Your task to perform on an android device: Add bose soundlink to the cart on walmart Image 0: 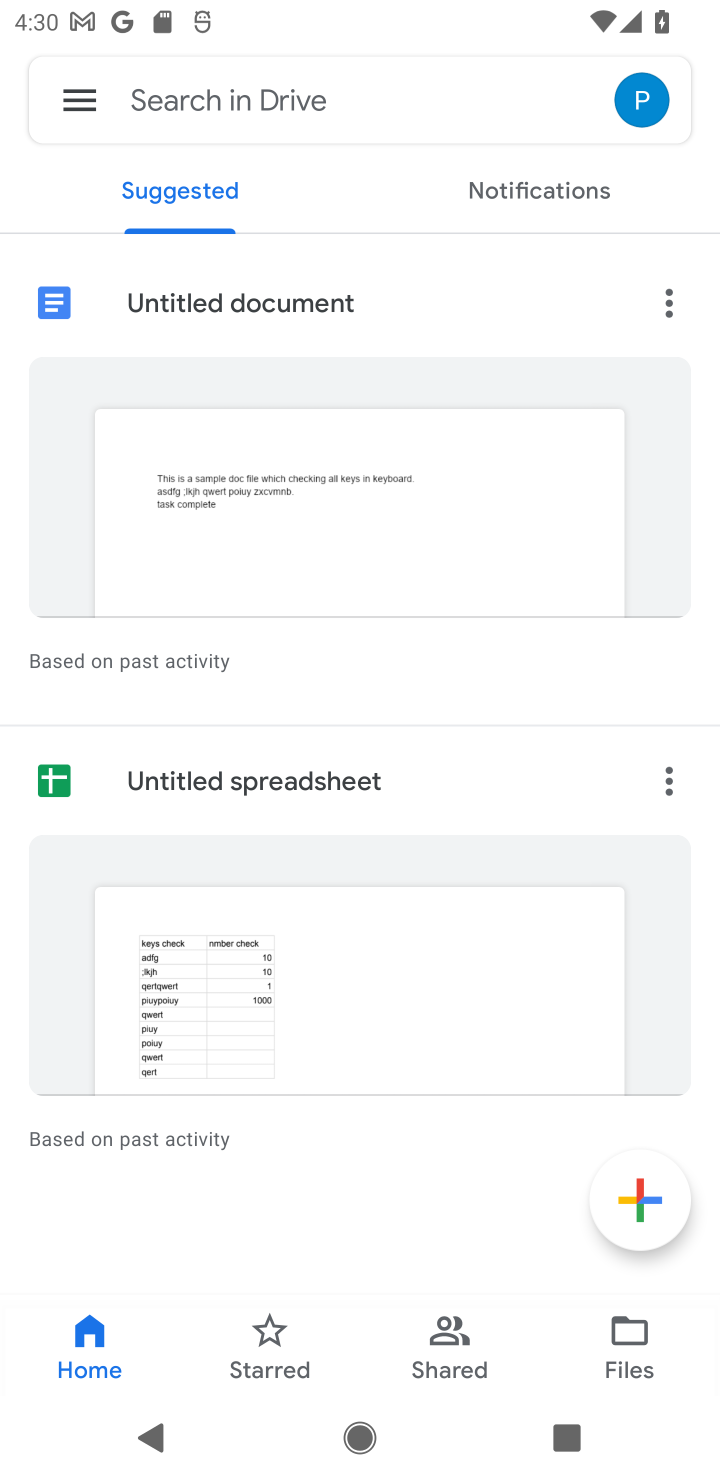
Step 0: press home button
Your task to perform on an android device: Add bose soundlink to the cart on walmart Image 1: 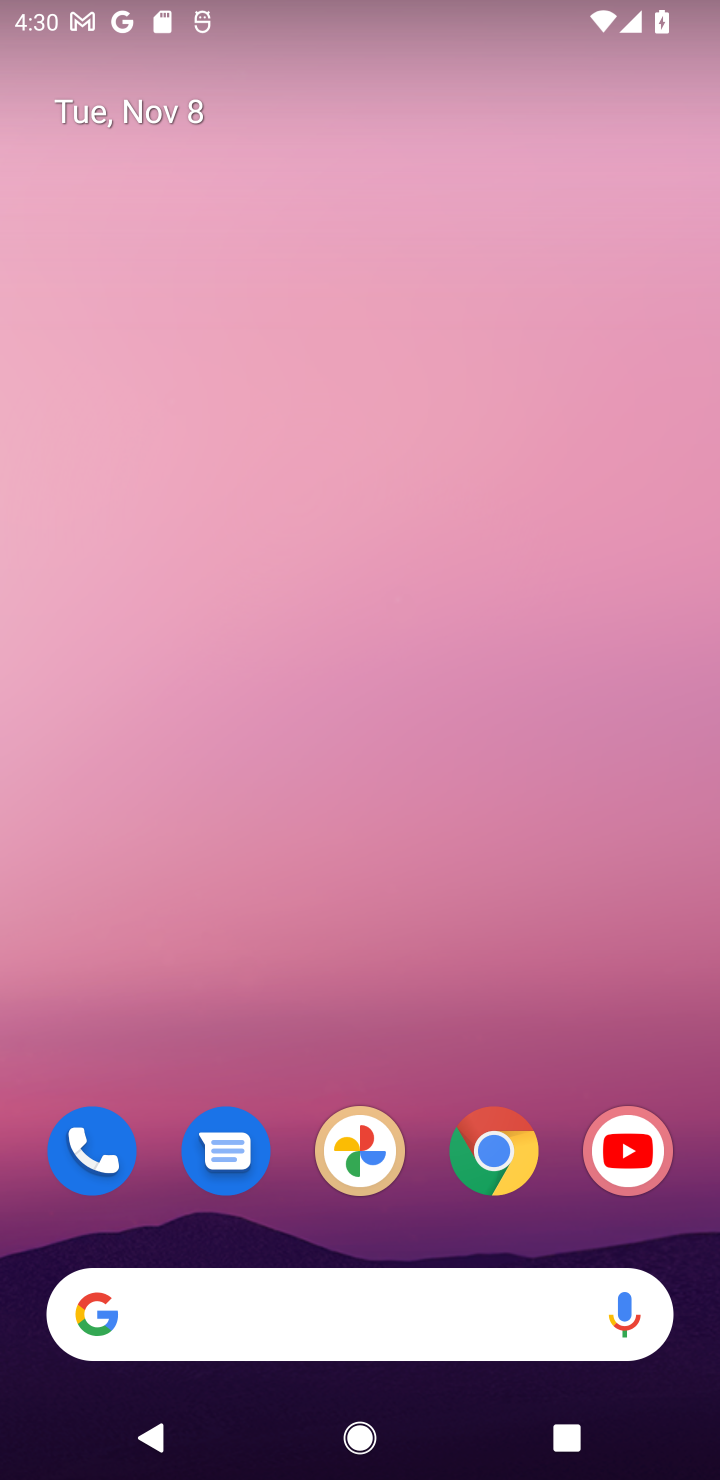
Step 1: drag from (431, 1249) to (541, 314)
Your task to perform on an android device: Add bose soundlink to the cart on walmart Image 2: 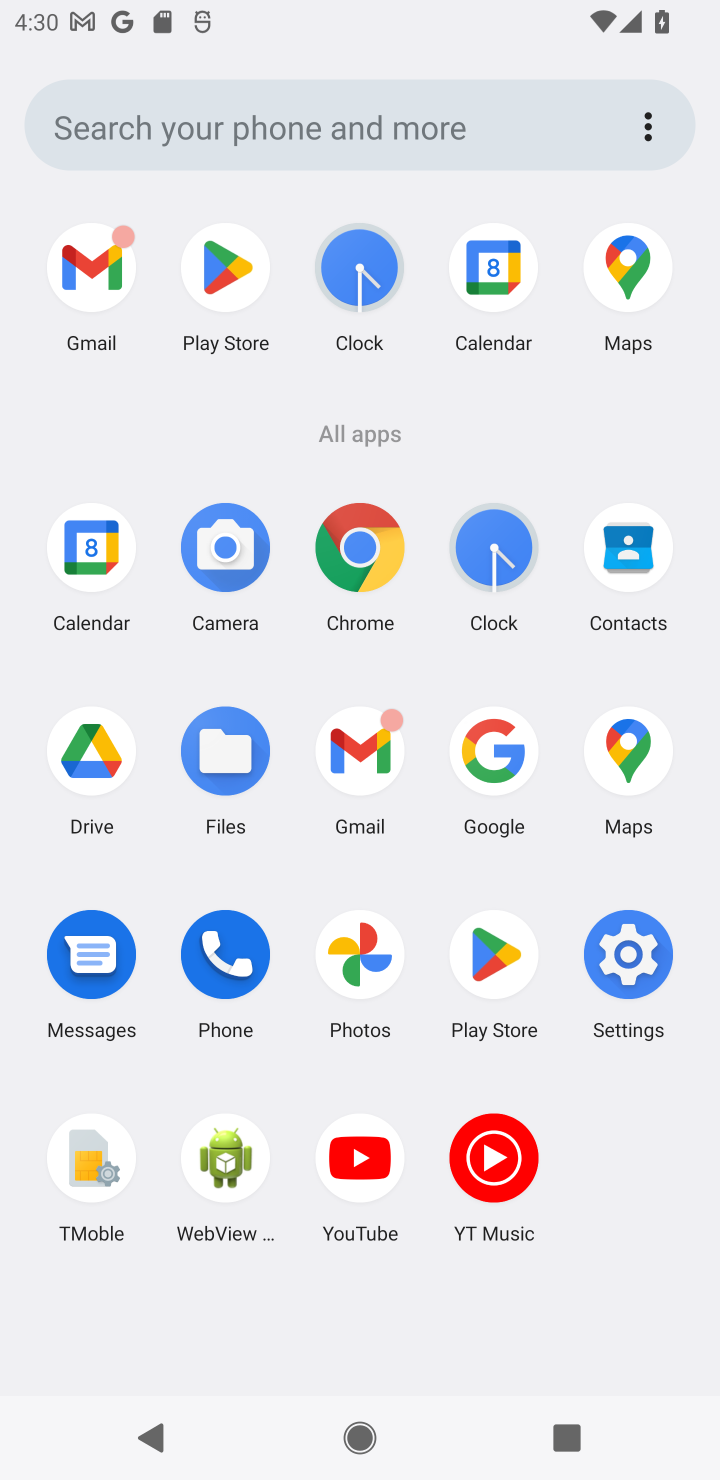
Step 2: click (356, 548)
Your task to perform on an android device: Add bose soundlink to the cart on walmart Image 3: 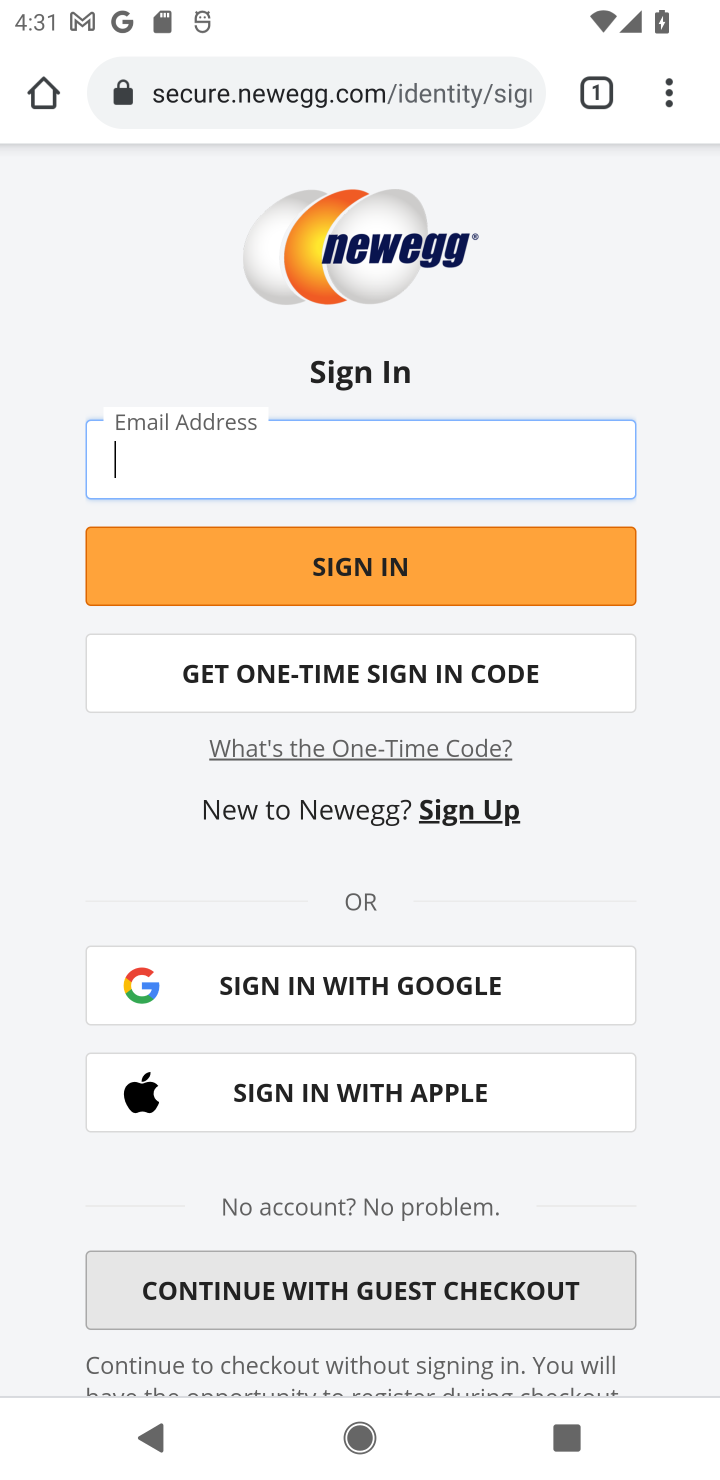
Step 3: click (281, 71)
Your task to perform on an android device: Add bose soundlink to the cart on walmart Image 4: 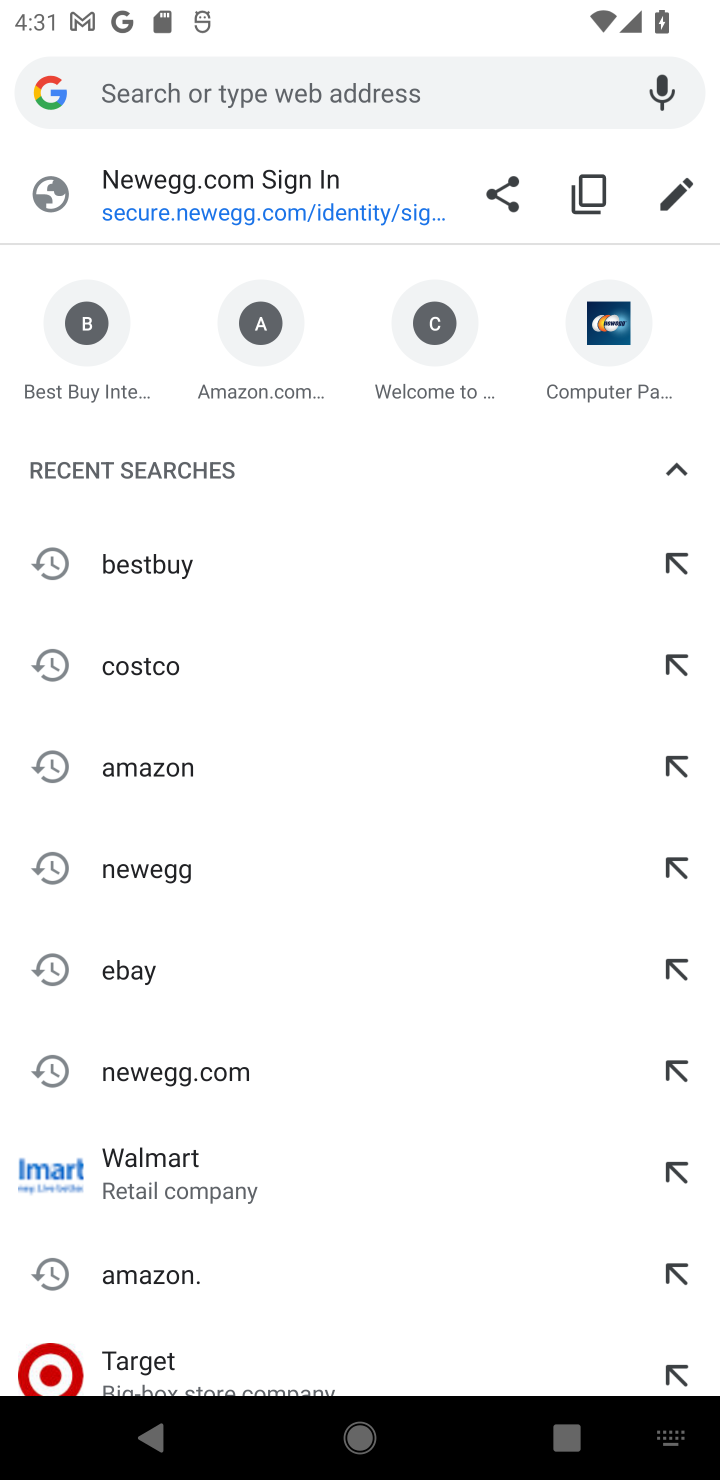
Step 4: type "walmart.com"
Your task to perform on an android device: Add bose soundlink to the cart on walmart Image 5: 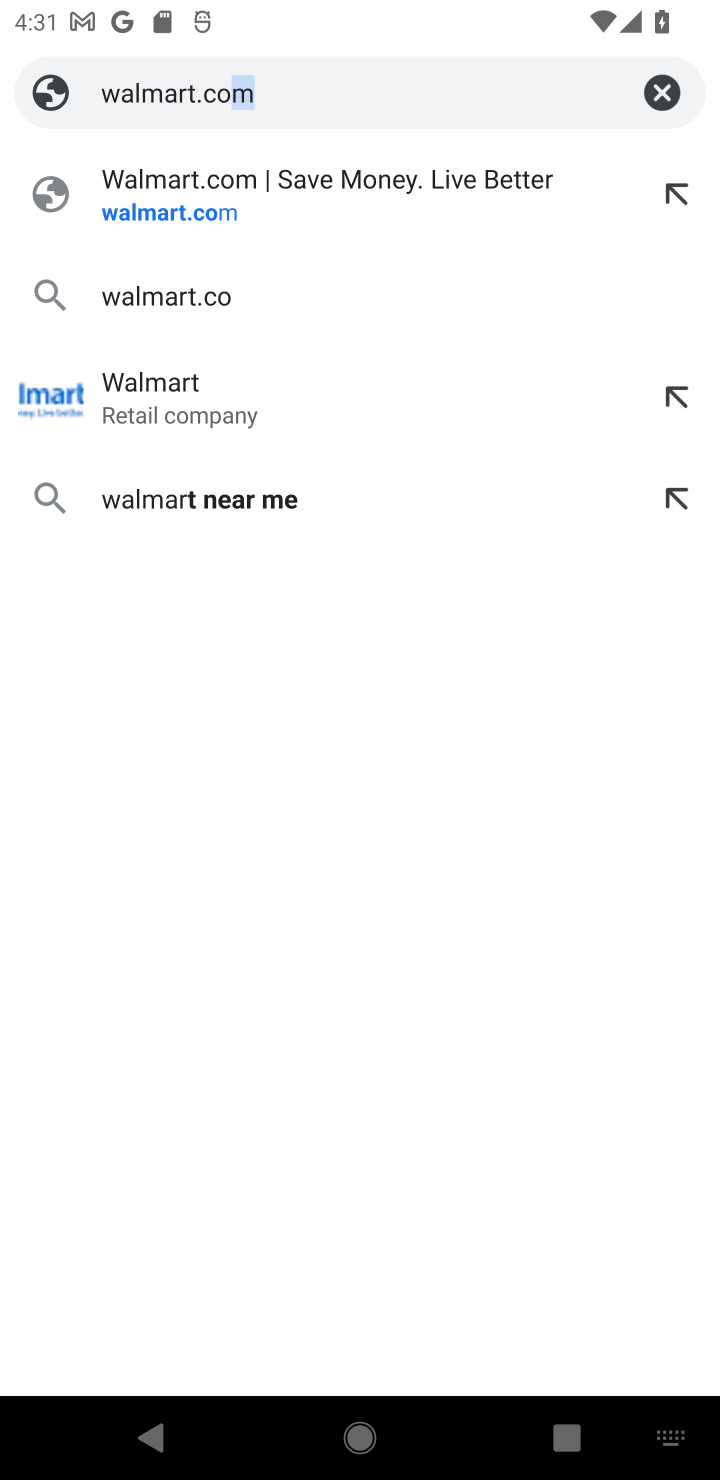
Step 5: press enter
Your task to perform on an android device: Add bose soundlink to the cart on walmart Image 6: 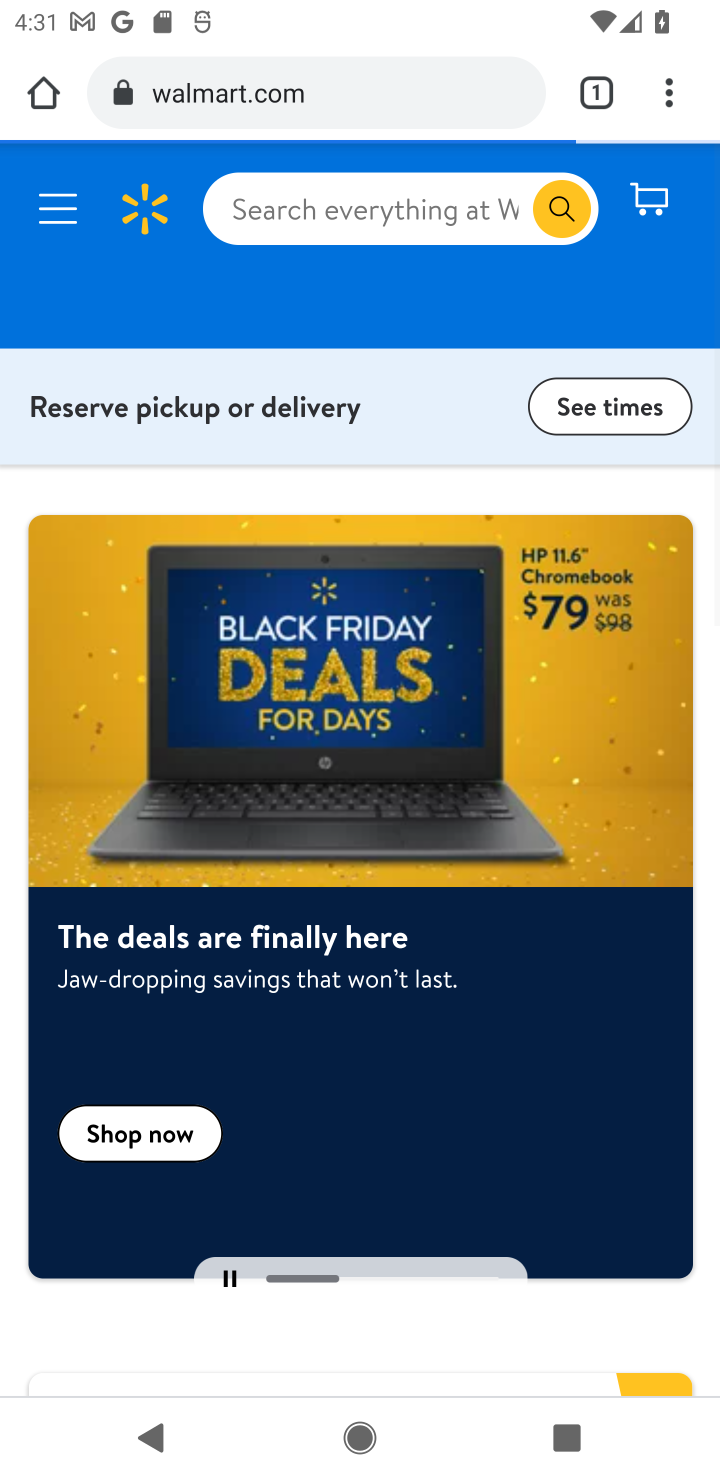
Step 6: click (397, 221)
Your task to perform on an android device: Add bose soundlink to the cart on walmart Image 7: 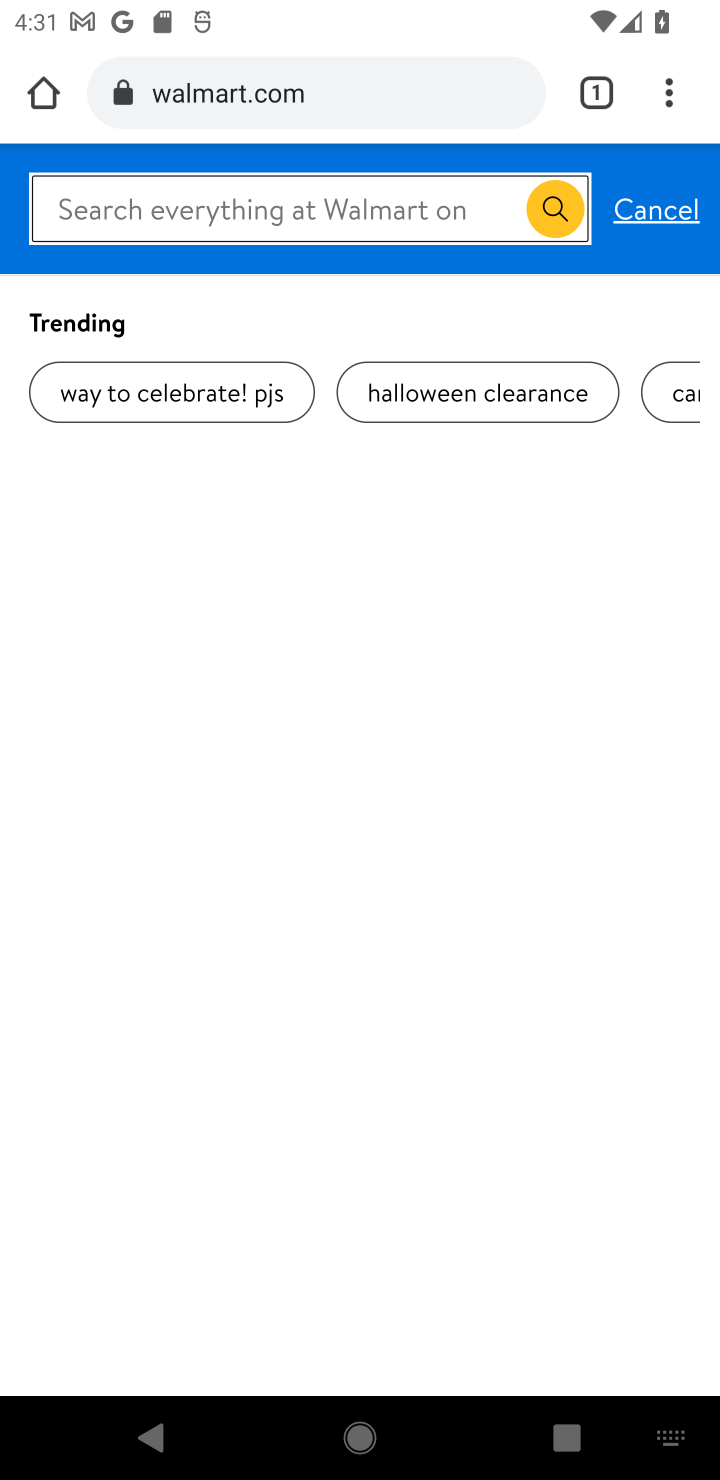
Step 7: type "bose soundlink"
Your task to perform on an android device: Add bose soundlink to the cart on walmart Image 8: 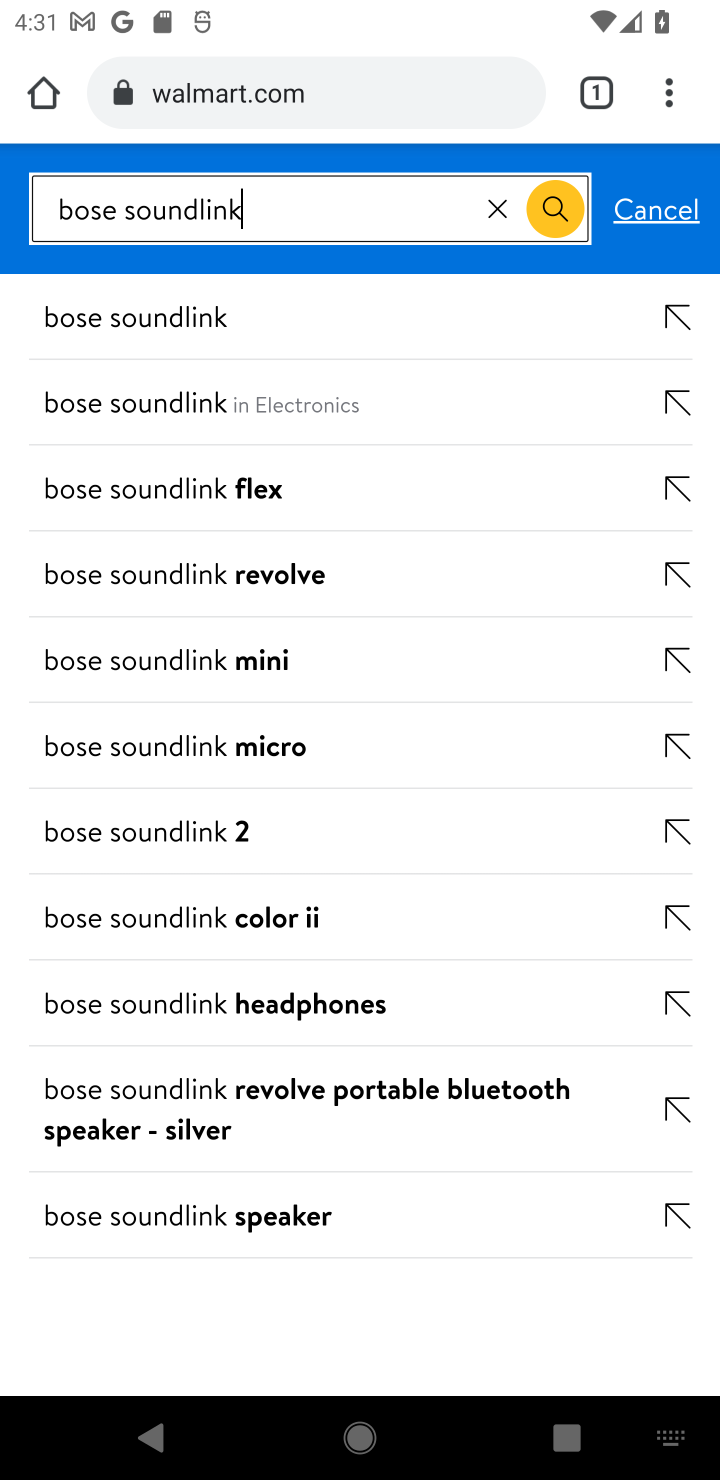
Step 8: press enter
Your task to perform on an android device: Add bose soundlink to the cart on walmart Image 9: 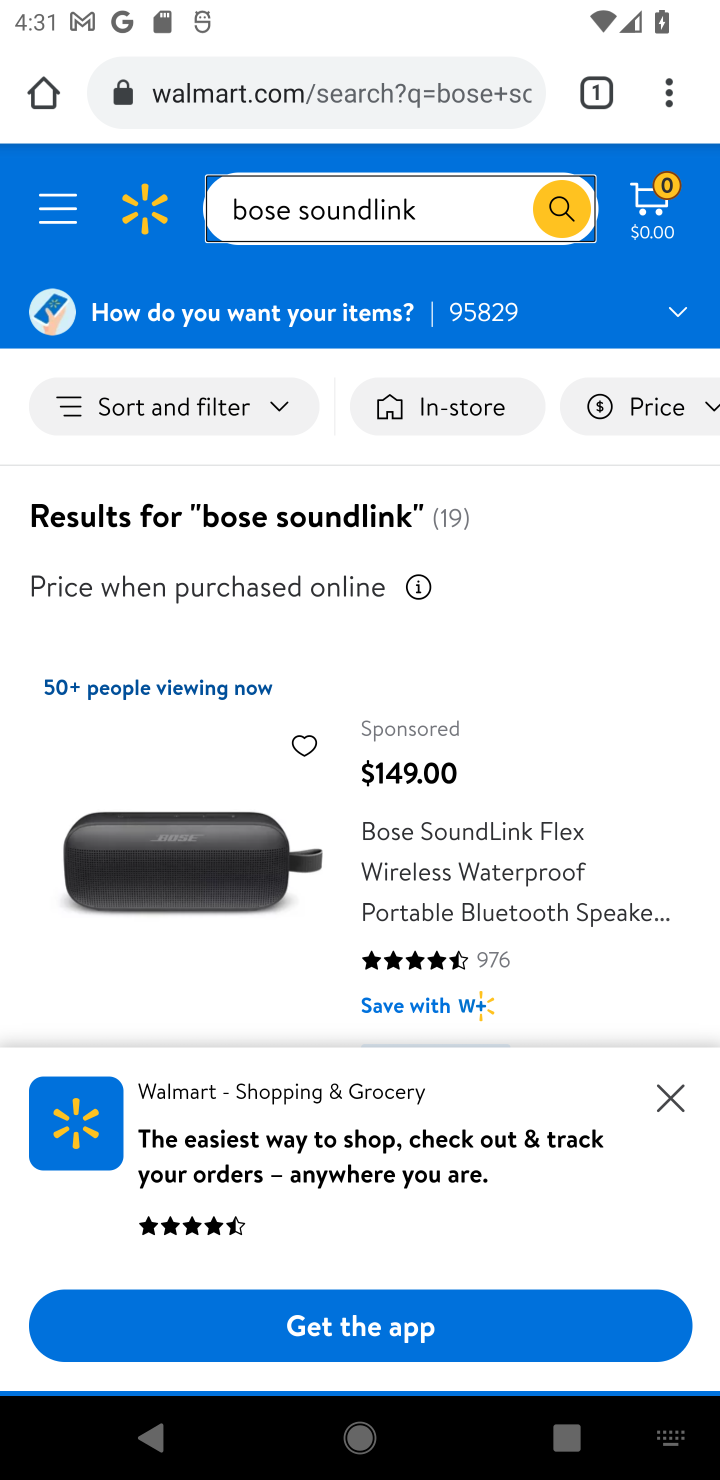
Step 9: drag from (367, 547) to (411, 306)
Your task to perform on an android device: Add bose soundlink to the cart on walmart Image 10: 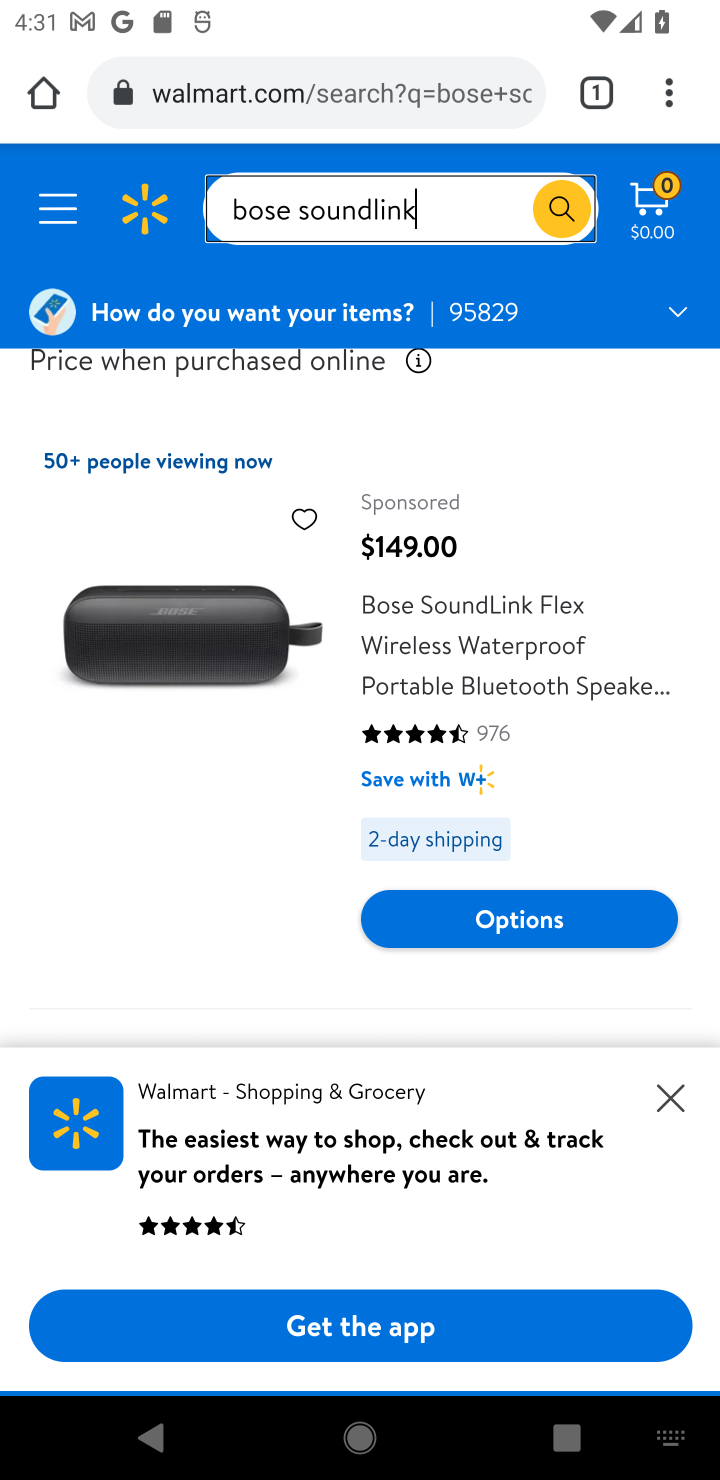
Step 10: drag from (308, 969) to (317, 188)
Your task to perform on an android device: Add bose soundlink to the cart on walmart Image 11: 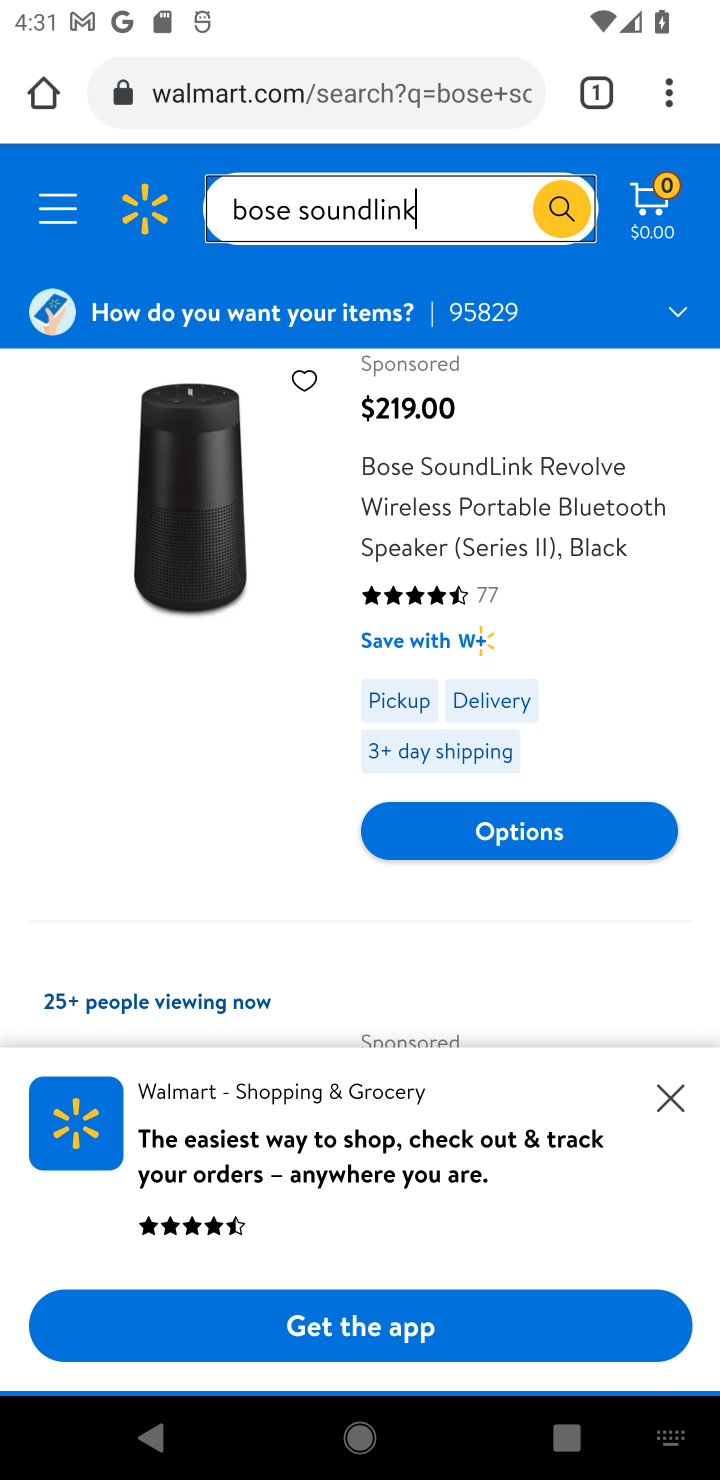
Step 11: drag from (256, 815) to (297, 239)
Your task to perform on an android device: Add bose soundlink to the cart on walmart Image 12: 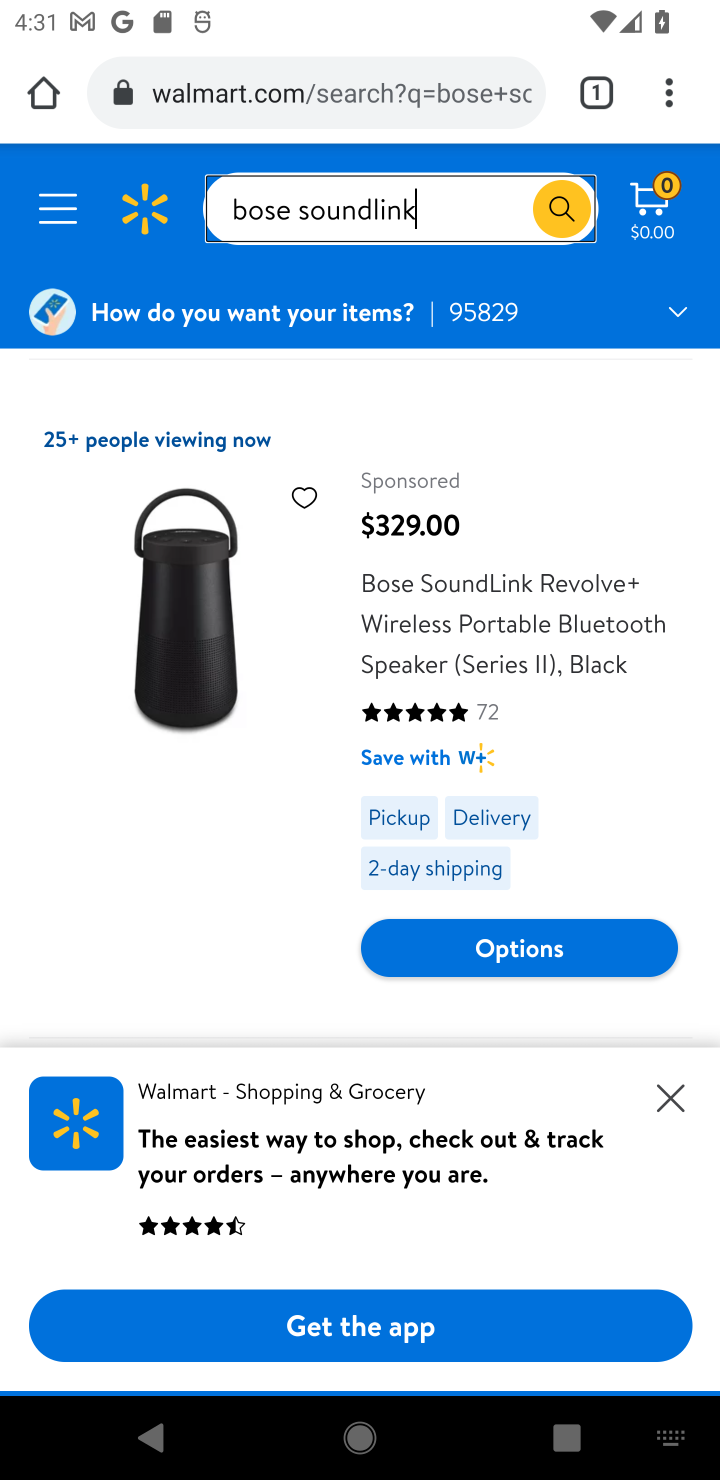
Step 12: drag from (204, 952) to (226, 361)
Your task to perform on an android device: Add bose soundlink to the cart on walmart Image 13: 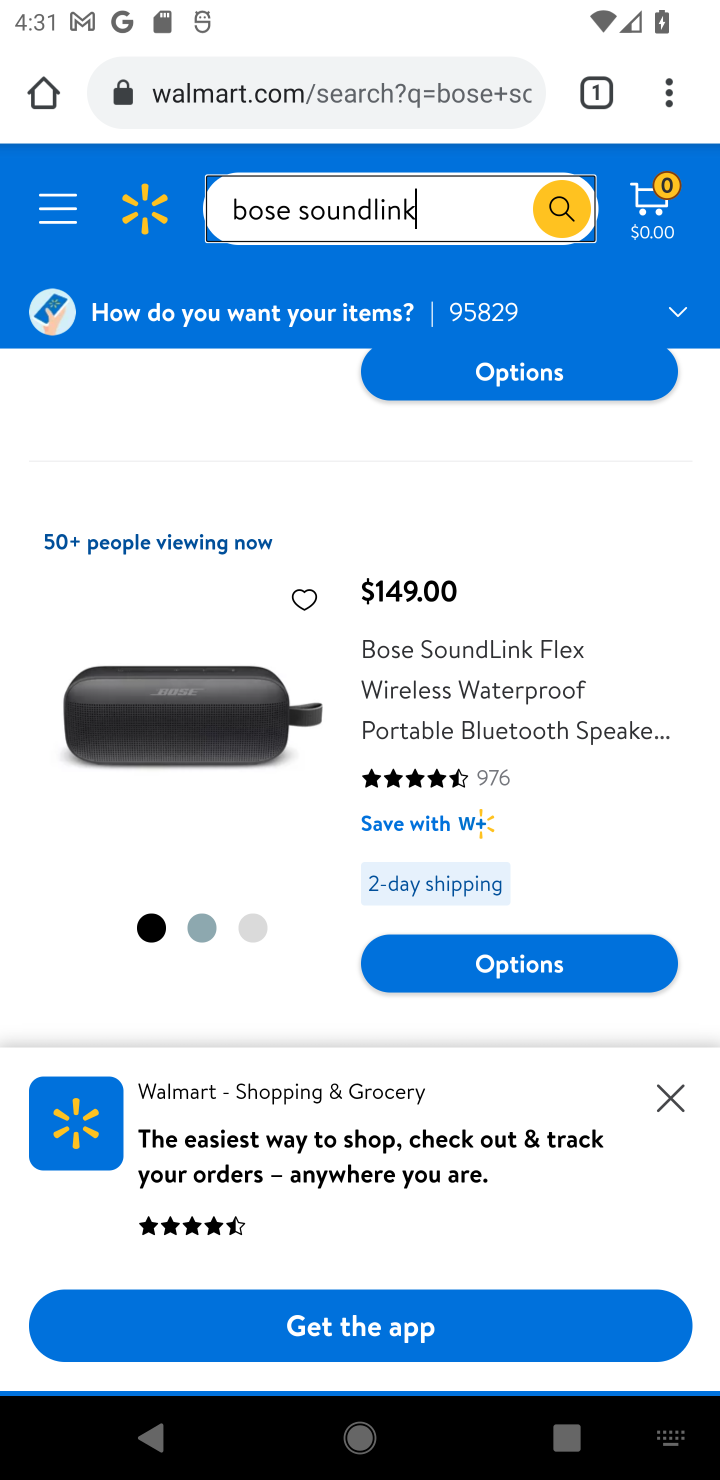
Step 13: drag from (220, 921) to (217, 239)
Your task to perform on an android device: Add bose soundlink to the cart on walmart Image 14: 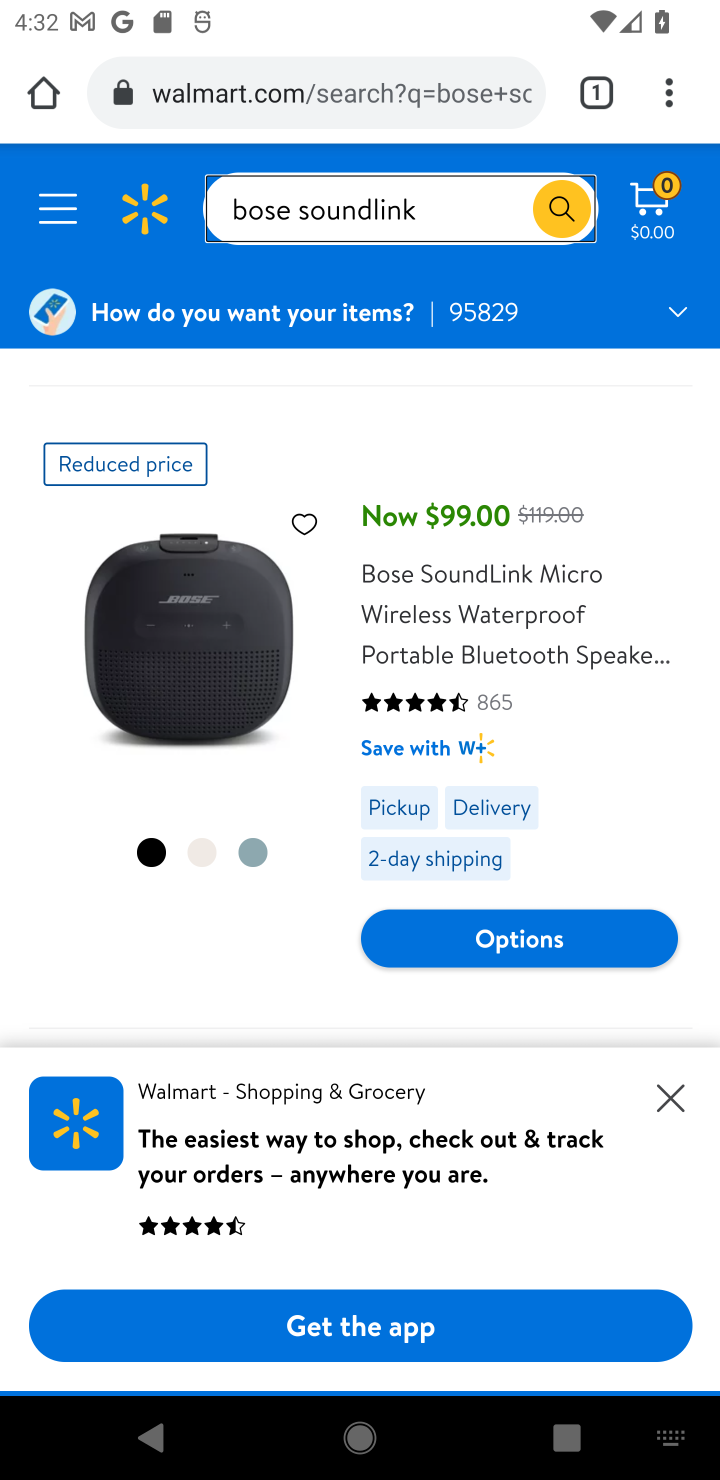
Step 14: drag from (266, 490) to (222, 1027)
Your task to perform on an android device: Add bose soundlink to the cart on walmart Image 15: 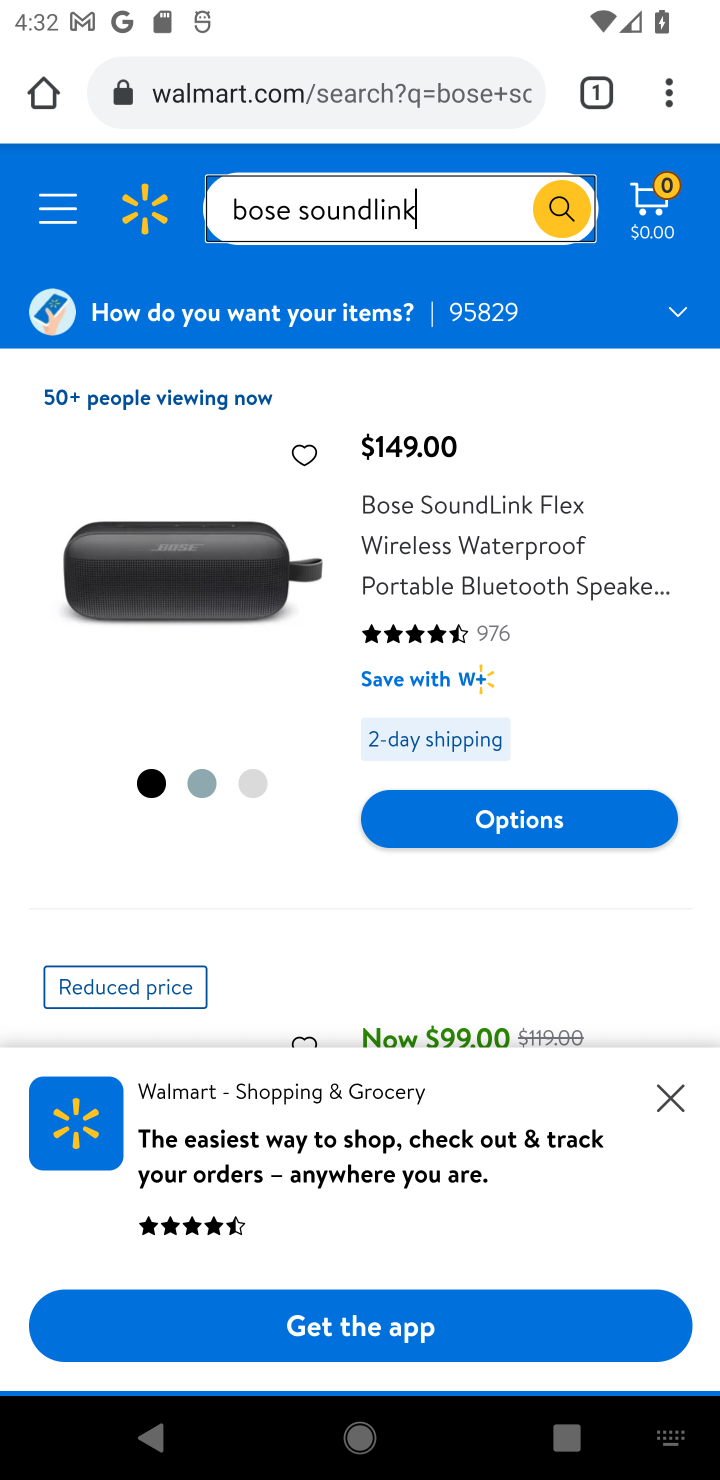
Step 15: click (458, 591)
Your task to perform on an android device: Add bose soundlink to the cart on walmart Image 16: 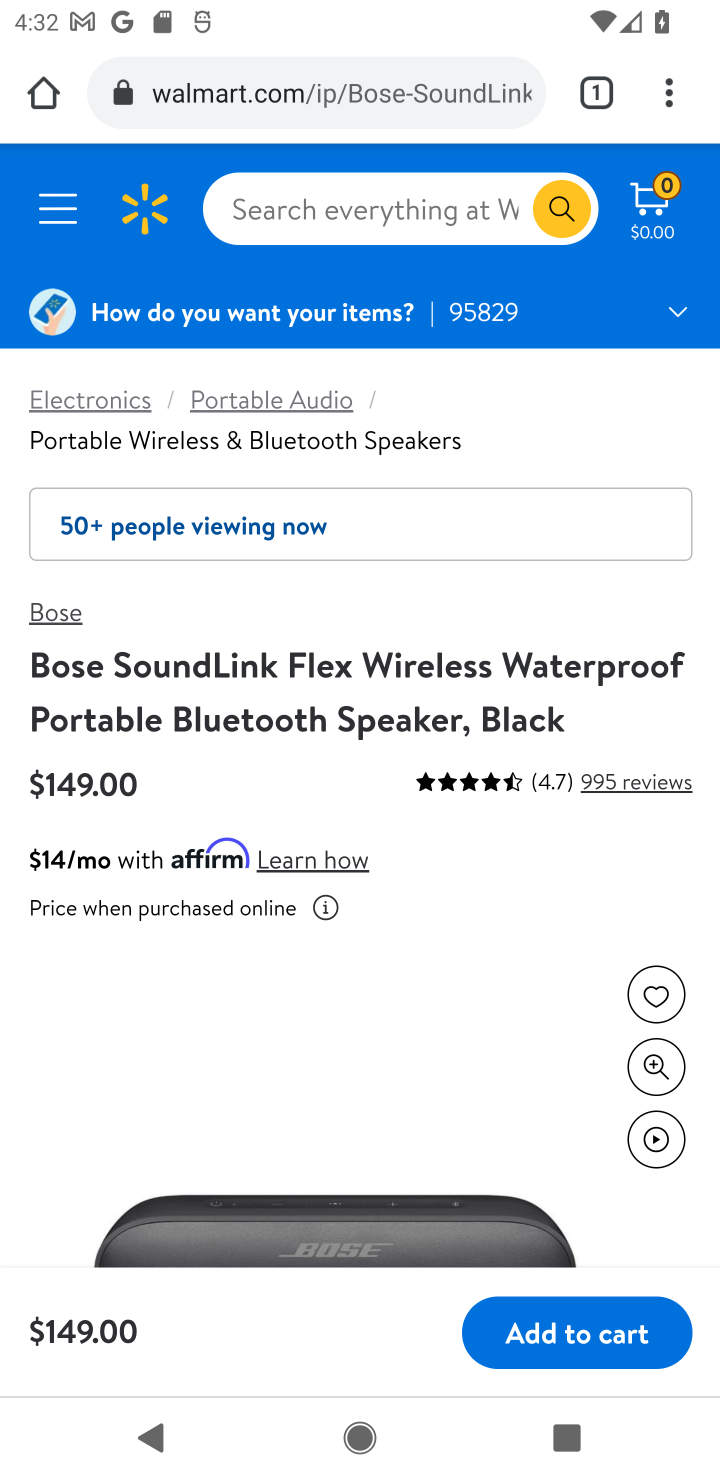
Step 16: drag from (329, 1126) to (329, 618)
Your task to perform on an android device: Add bose soundlink to the cart on walmart Image 17: 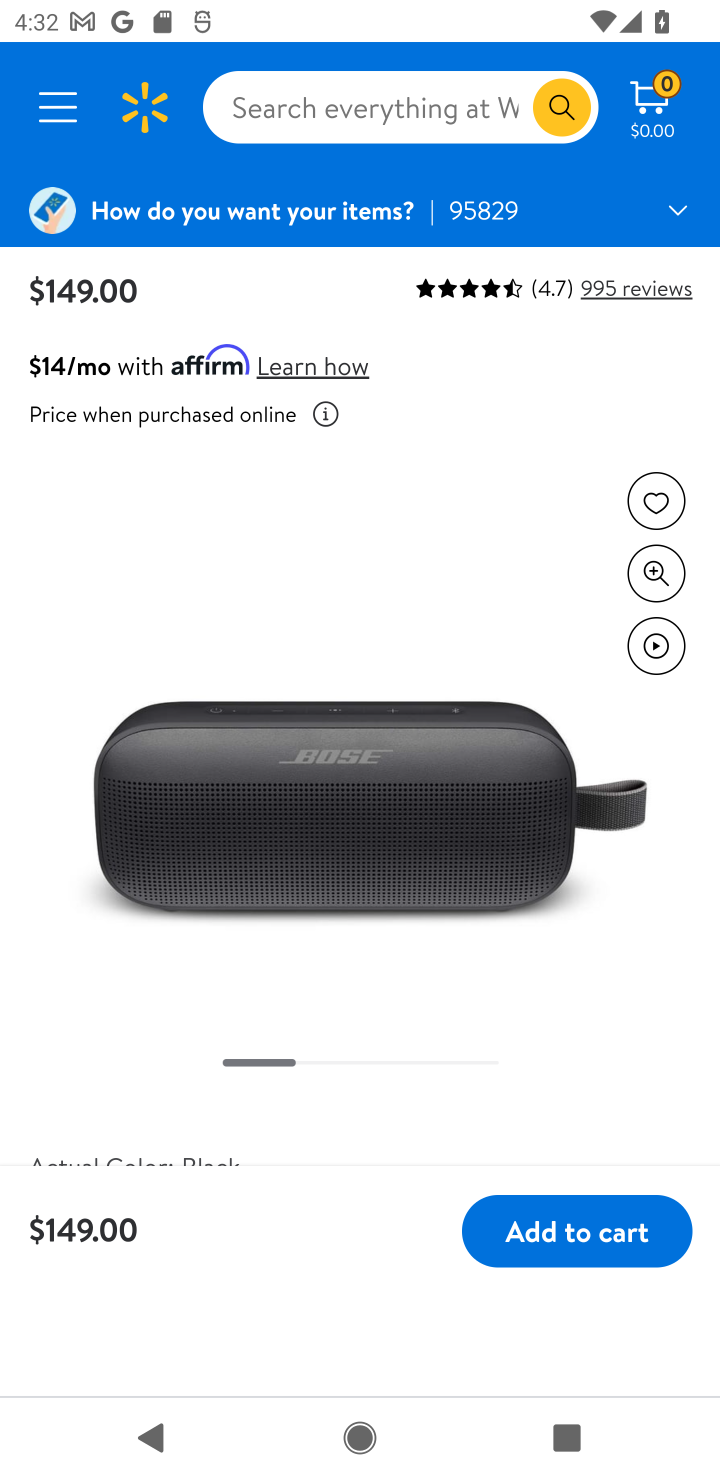
Step 17: click (590, 1331)
Your task to perform on an android device: Add bose soundlink to the cart on walmart Image 18: 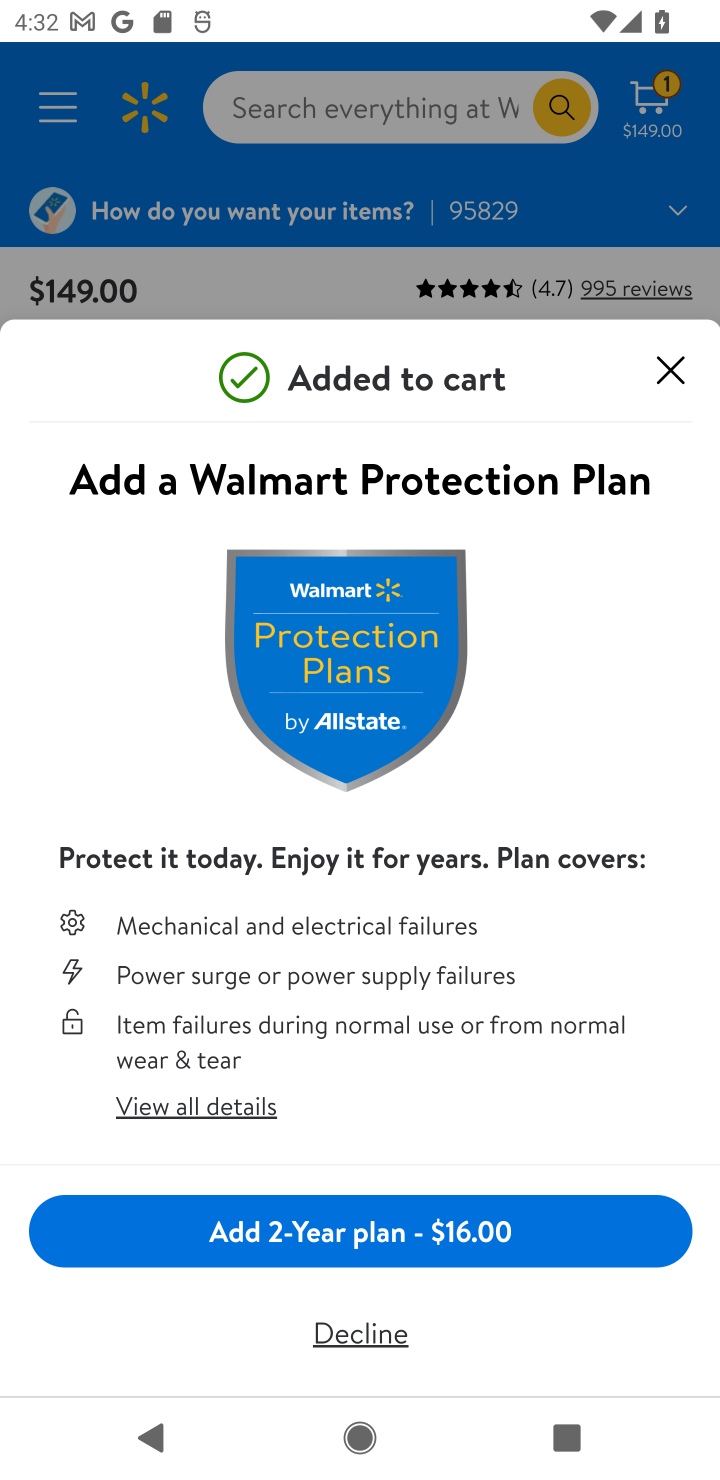
Step 18: task complete